Your task to perform on an android device: toggle translation in the chrome app Image 0: 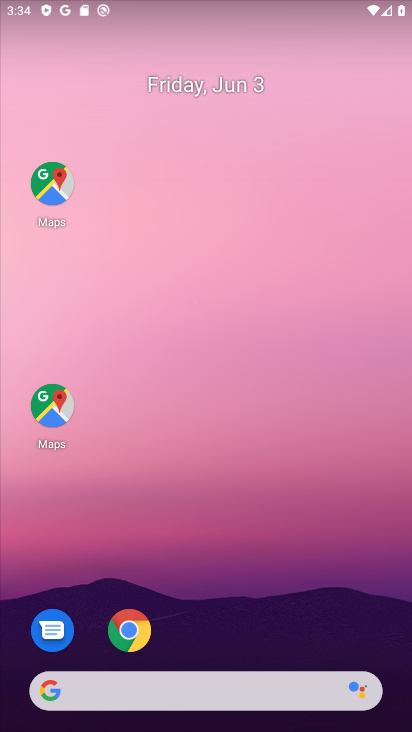
Step 0: drag from (299, 662) to (211, 314)
Your task to perform on an android device: toggle translation in the chrome app Image 1: 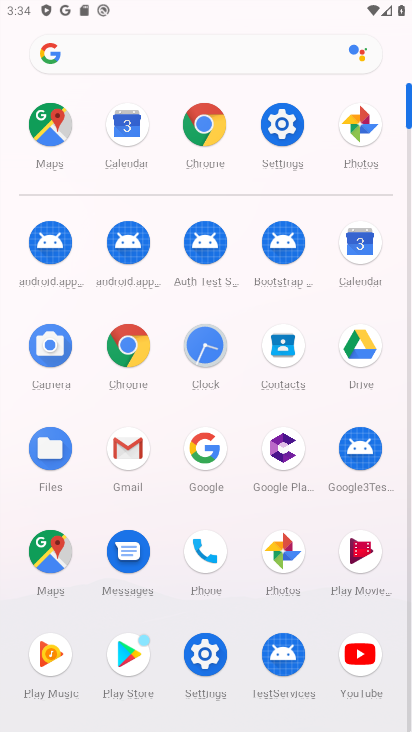
Step 1: click (127, 347)
Your task to perform on an android device: toggle translation in the chrome app Image 2: 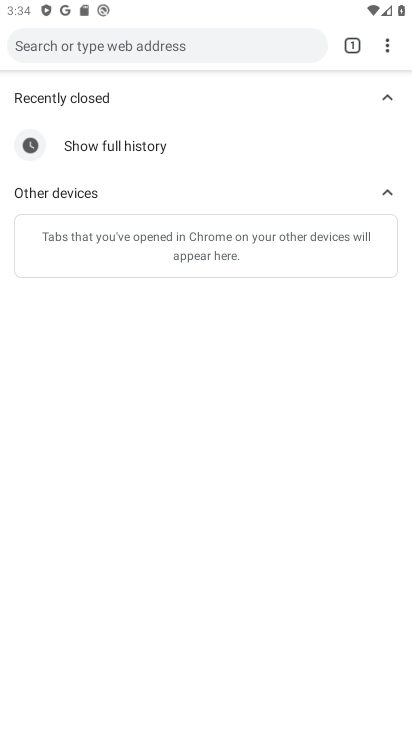
Step 2: drag from (390, 46) to (244, 386)
Your task to perform on an android device: toggle translation in the chrome app Image 3: 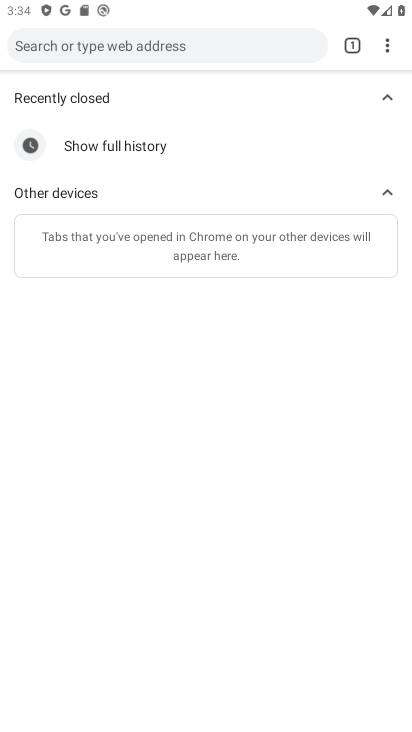
Step 3: click (238, 378)
Your task to perform on an android device: toggle translation in the chrome app Image 4: 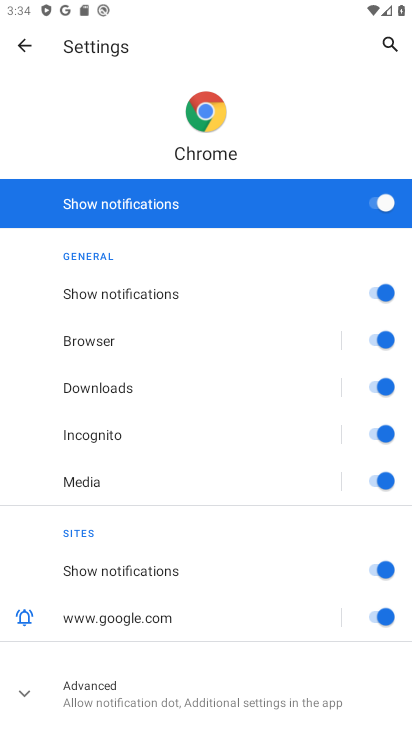
Step 4: click (13, 42)
Your task to perform on an android device: toggle translation in the chrome app Image 5: 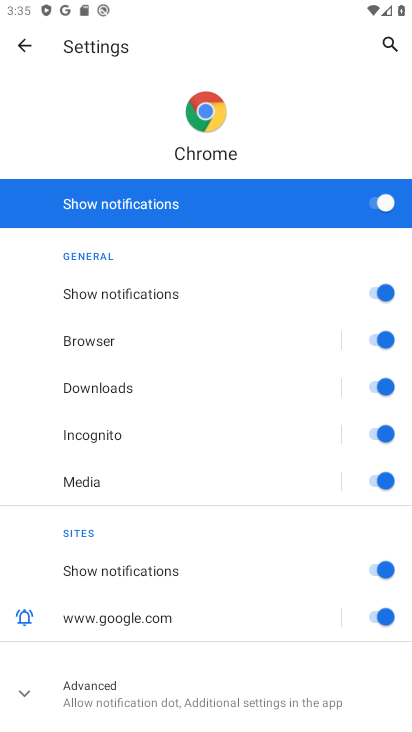
Step 5: click (14, 46)
Your task to perform on an android device: toggle translation in the chrome app Image 6: 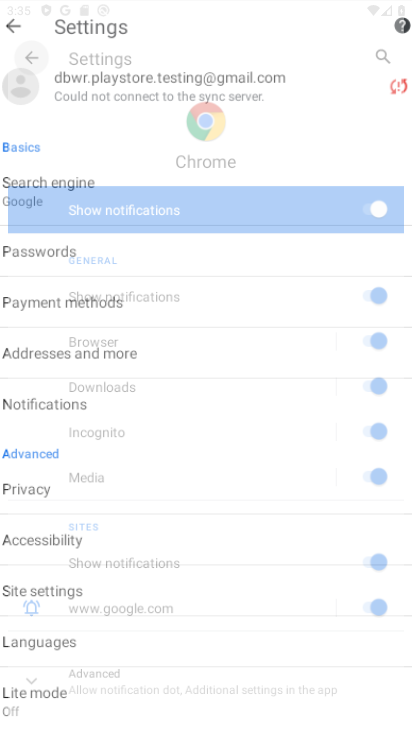
Step 6: click (15, 42)
Your task to perform on an android device: toggle translation in the chrome app Image 7: 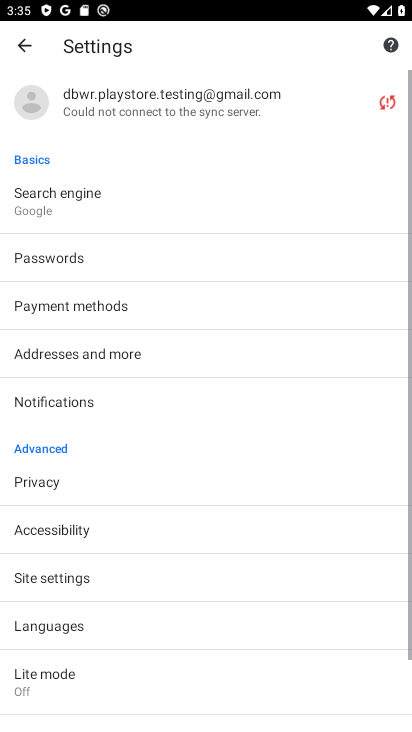
Step 7: click (12, 40)
Your task to perform on an android device: toggle translation in the chrome app Image 8: 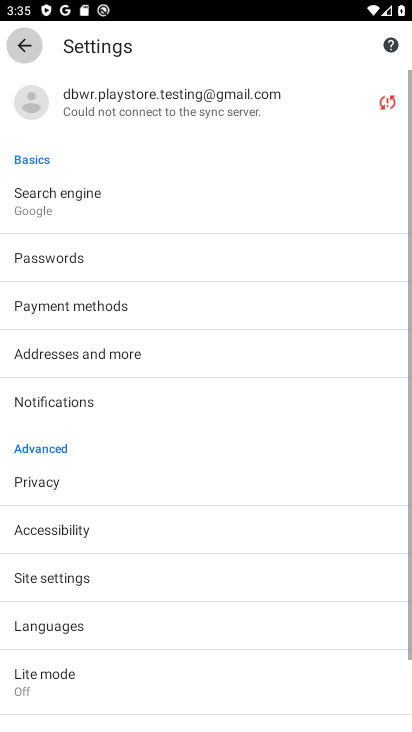
Step 8: click (12, 40)
Your task to perform on an android device: toggle translation in the chrome app Image 9: 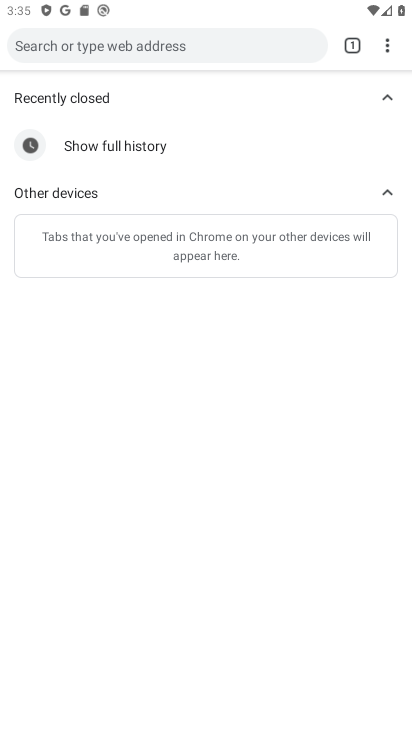
Step 9: click (384, 49)
Your task to perform on an android device: toggle translation in the chrome app Image 10: 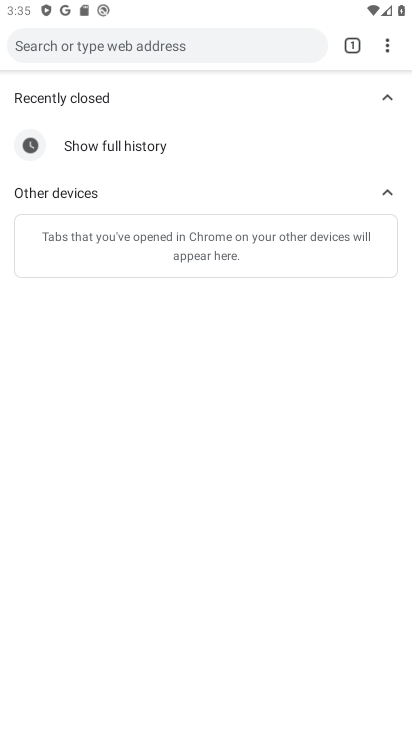
Step 10: drag from (392, 45) to (224, 378)
Your task to perform on an android device: toggle translation in the chrome app Image 11: 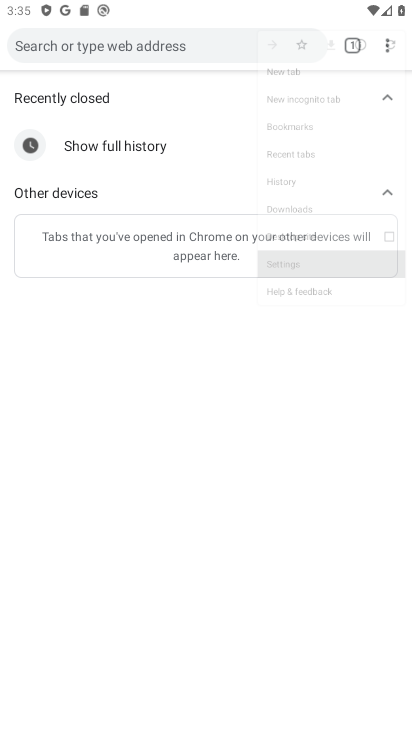
Step 11: click (222, 376)
Your task to perform on an android device: toggle translation in the chrome app Image 12: 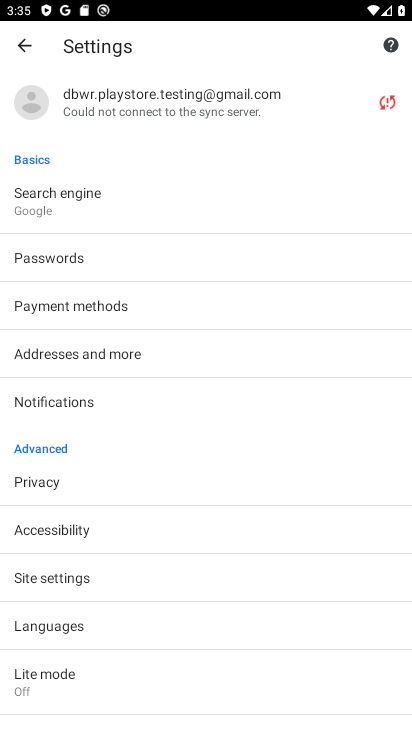
Step 12: click (37, 630)
Your task to perform on an android device: toggle translation in the chrome app Image 13: 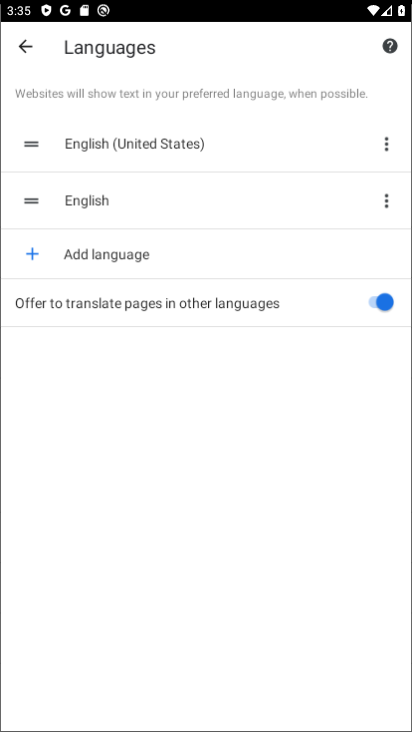
Step 13: click (39, 630)
Your task to perform on an android device: toggle translation in the chrome app Image 14: 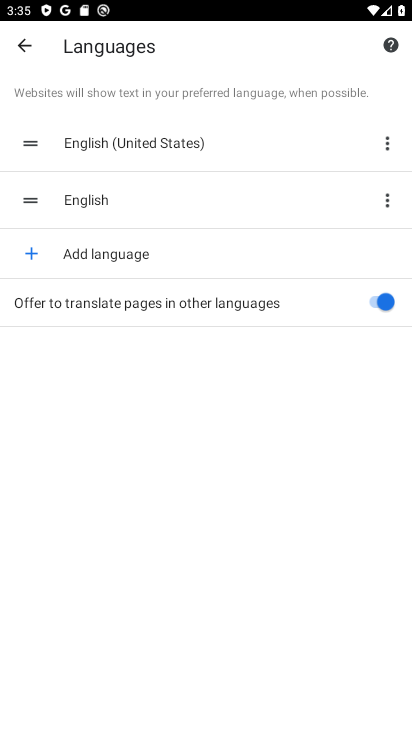
Step 14: click (380, 298)
Your task to perform on an android device: toggle translation in the chrome app Image 15: 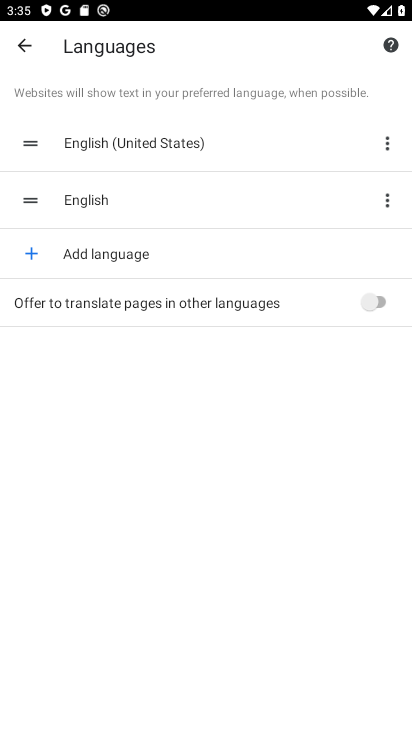
Step 15: task complete